Your task to perform on an android device: add a label to a message in the gmail app Image 0: 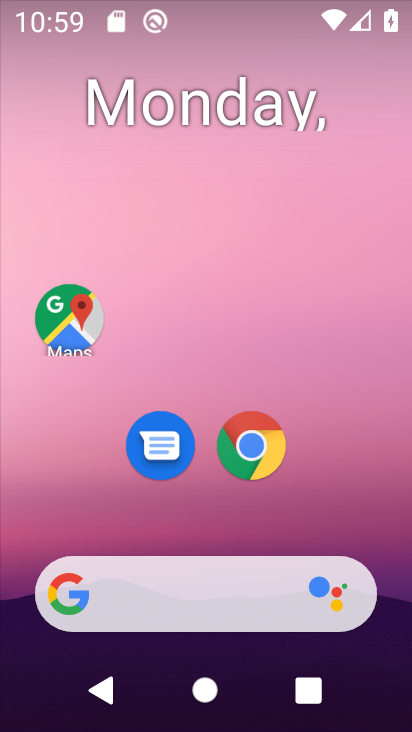
Step 0: drag from (213, 550) to (228, 254)
Your task to perform on an android device: add a label to a message in the gmail app Image 1: 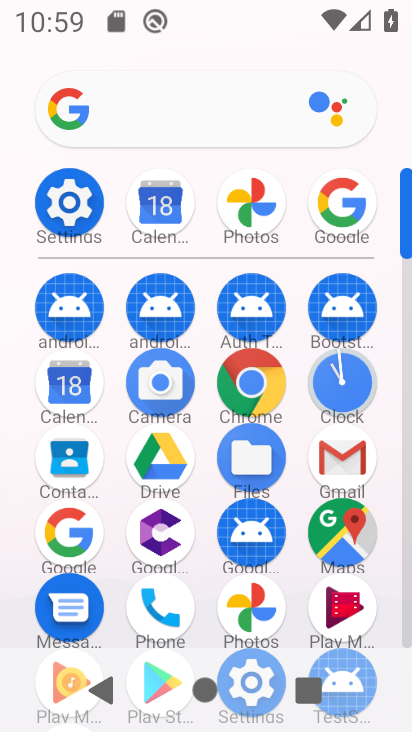
Step 1: click (342, 455)
Your task to perform on an android device: add a label to a message in the gmail app Image 2: 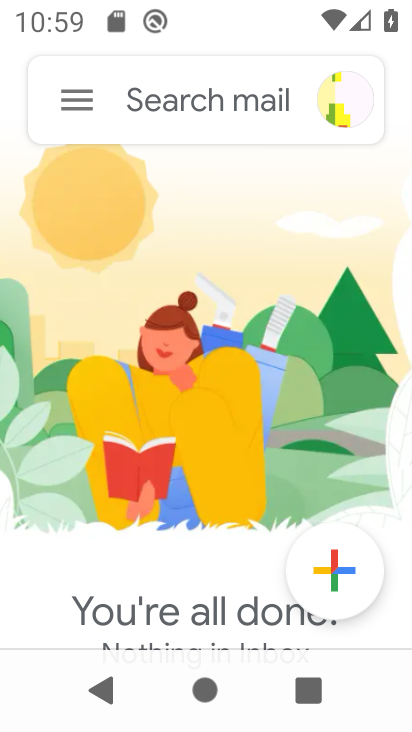
Step 2: click (79, 92)
Your task to perform on an android device: add a label to a message in the gmail app Image 3: 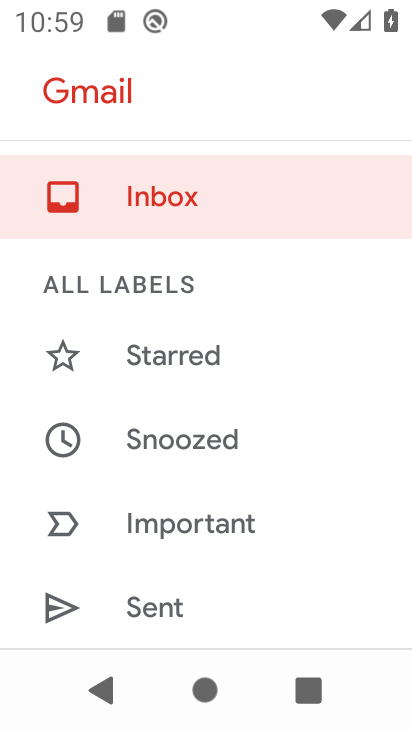
Step 3: click (145, 207)
Your task to perform on an android device: add a label to a message in the gmail app Image 4: 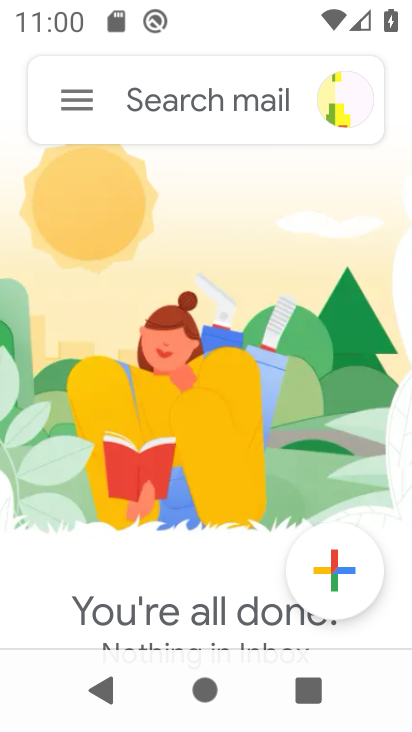
Step 4: task complete